Your task to perform on an android device: Open the stopwatch Image 0: 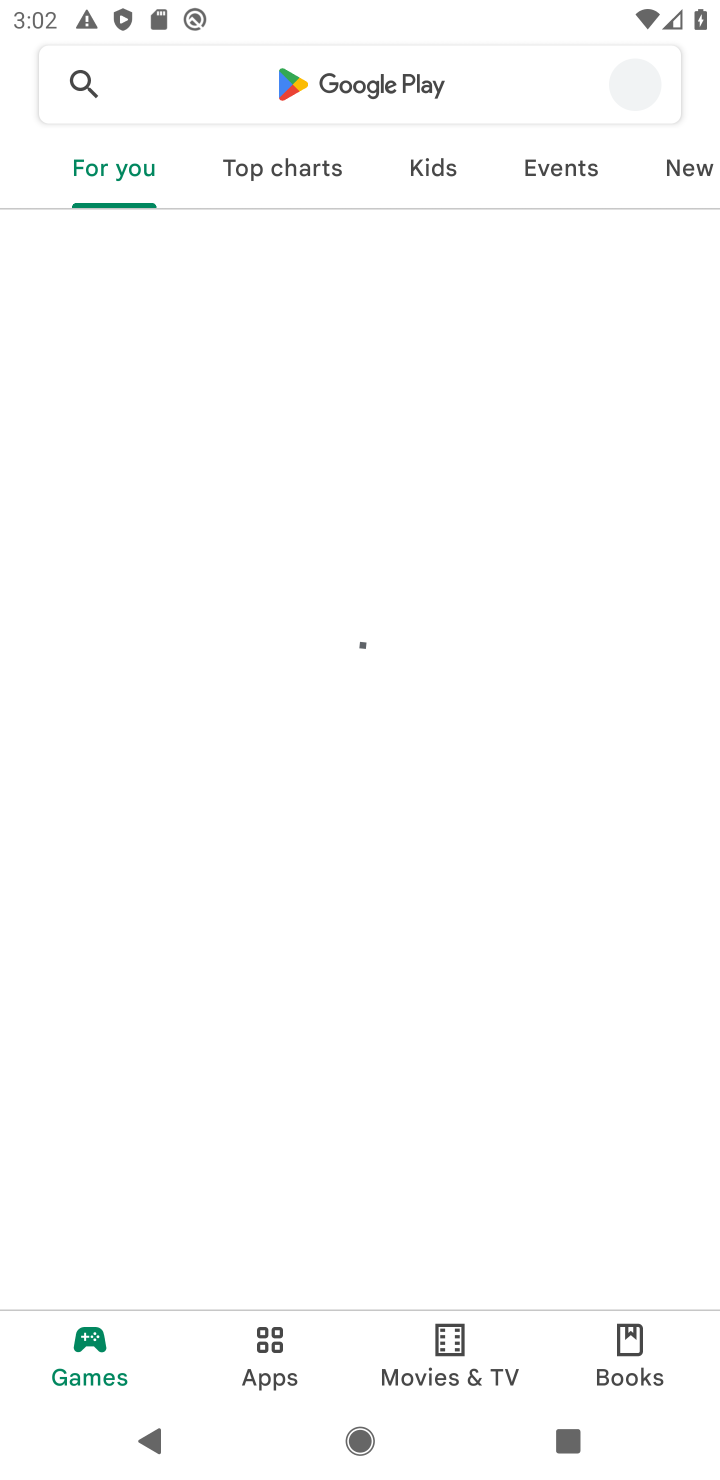
Step 0: press home button
Your task to perform on an android device: Open the stopwatch Image 1: 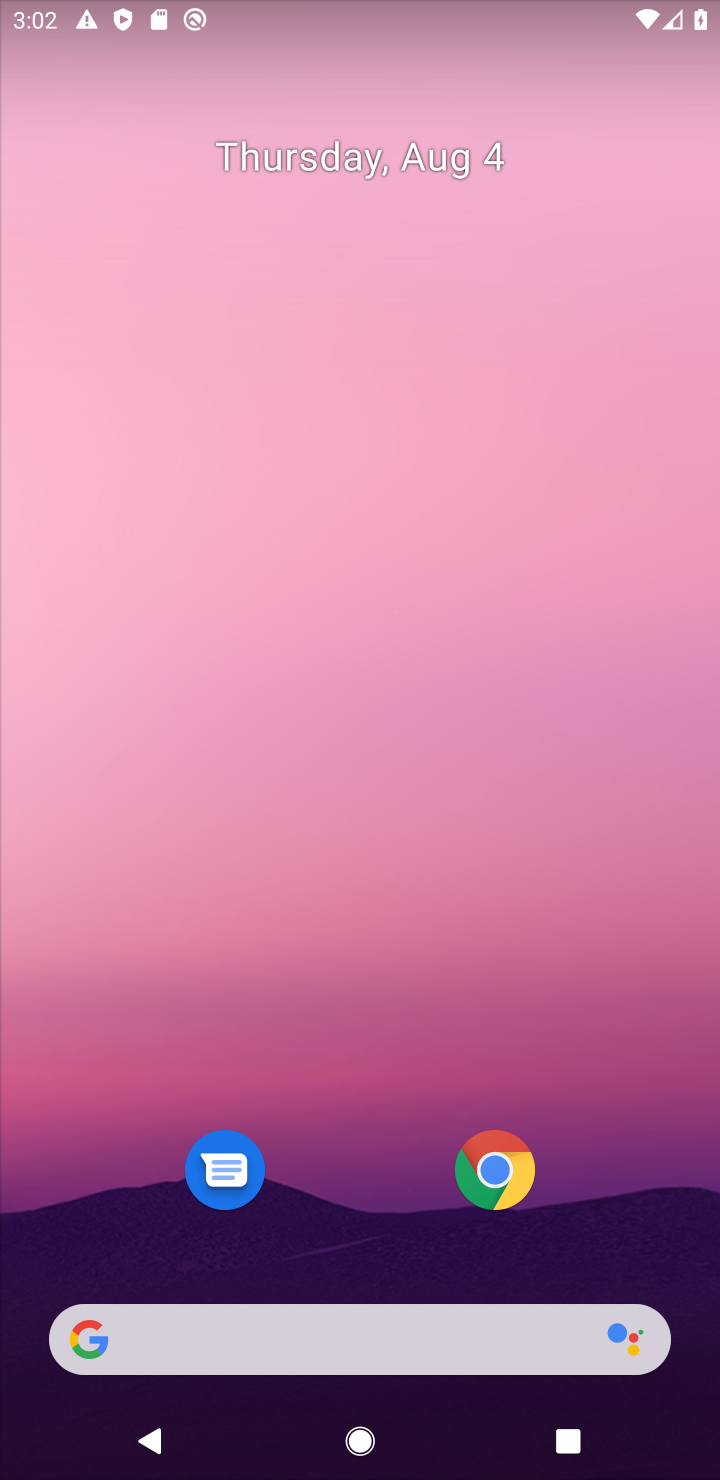
Step 1: drag from (692, 1262) to (523, 581)
Your task to perform on an android device: Open the stopwatch Image 2: 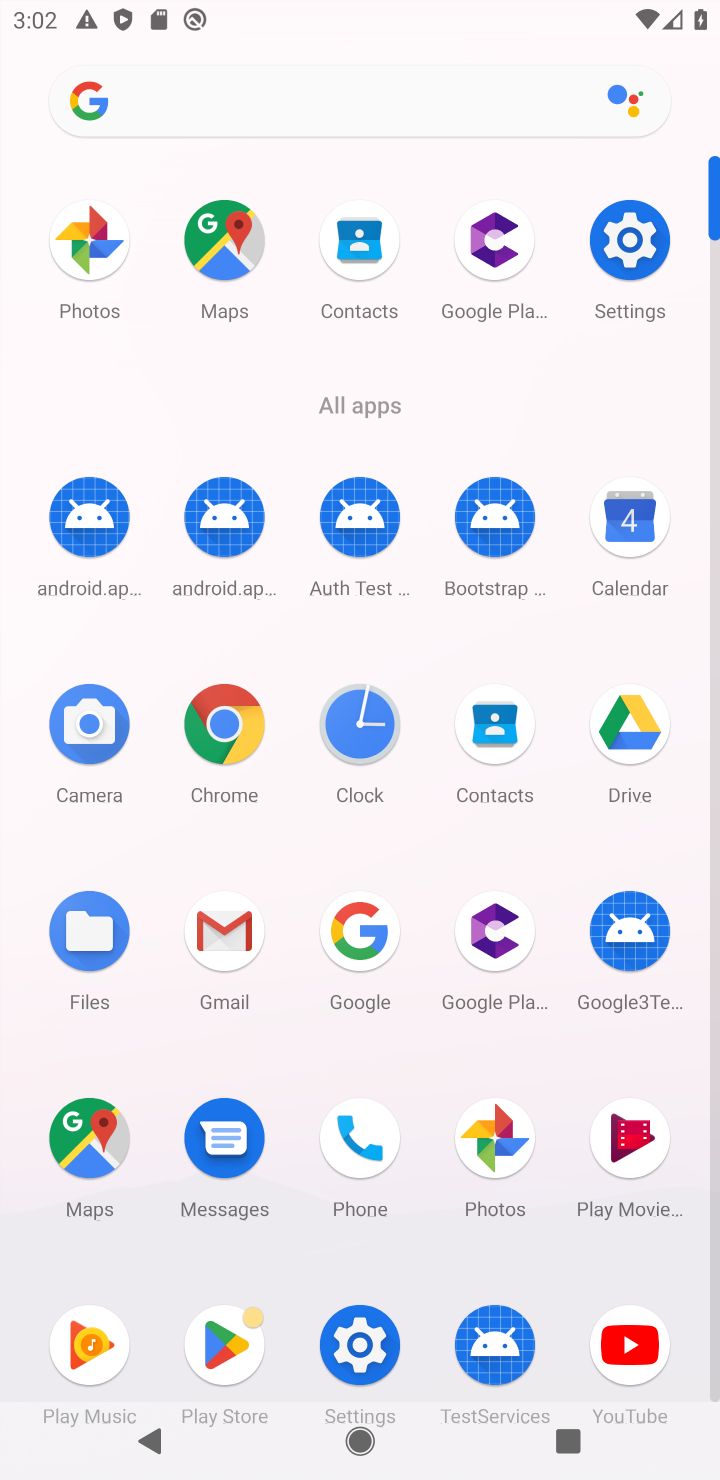
Step 2: click (356, 723)
Your task to perform on an android device: Open the stopwatch Image 3: 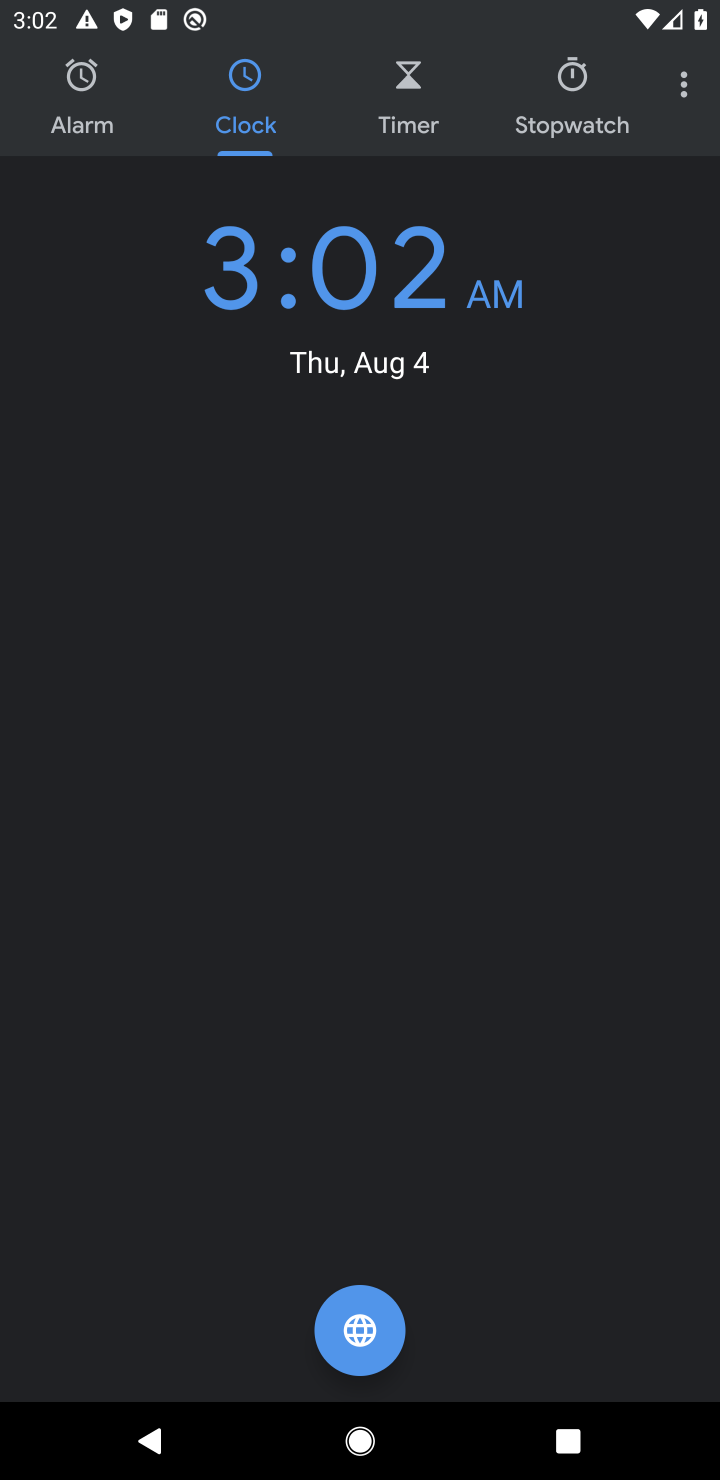
Step 3: click (570, 82)
Your task to perform on an android device: Open the stopwatch Image 4: 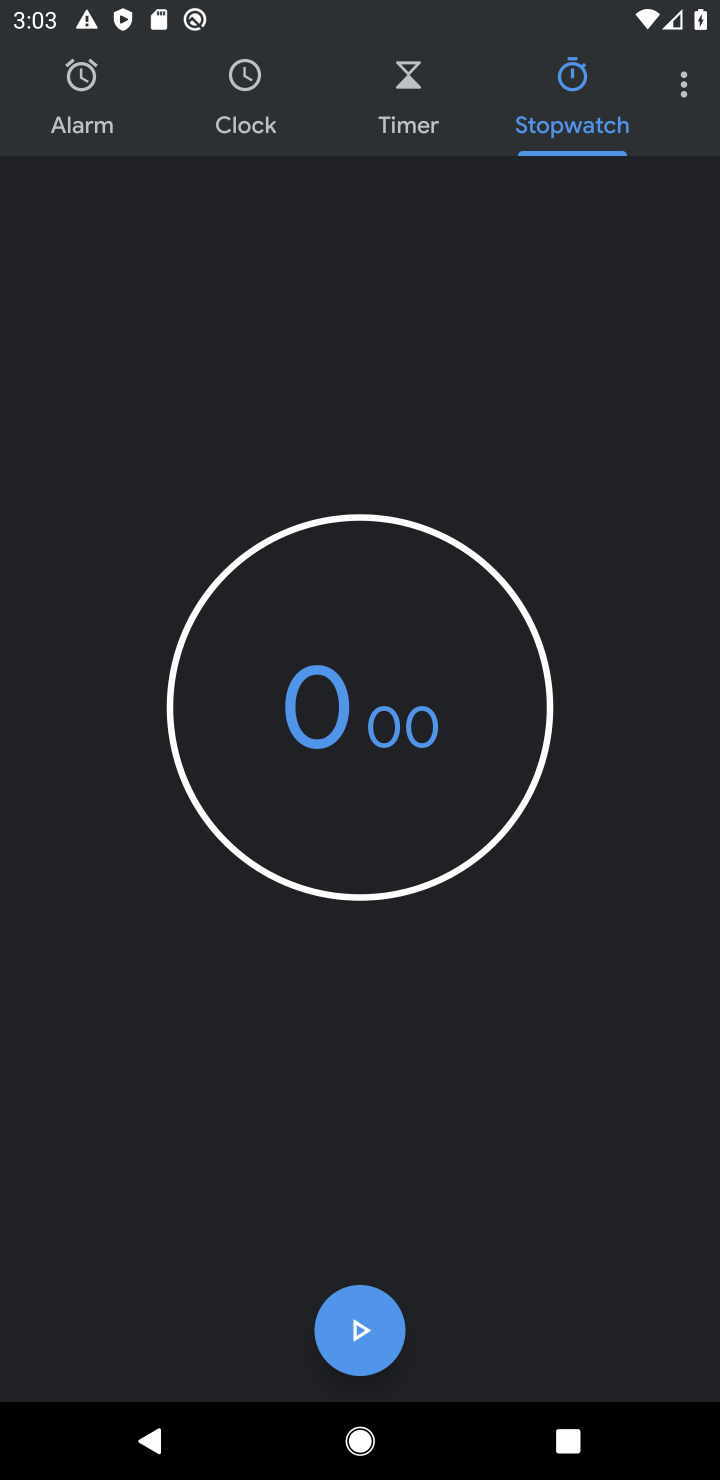
Step 4: task complete